Your task to perform on an android device: Open Chrome and go to settings Image 0: 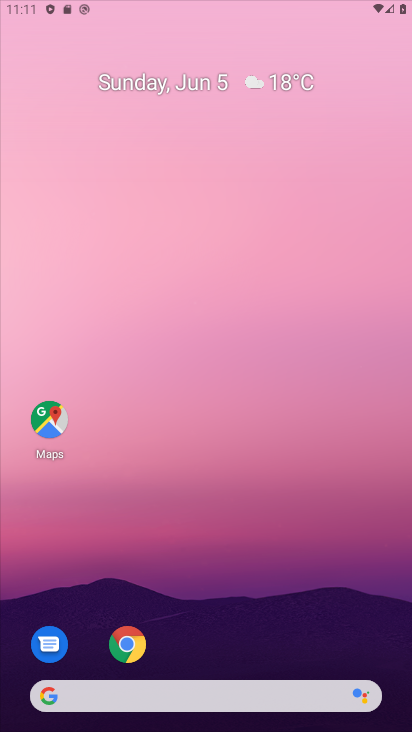
Step 0: drag from (229, 568) to (264, 161)
Your task to perform on an android device: Open Chrome and go to settings Image 1: 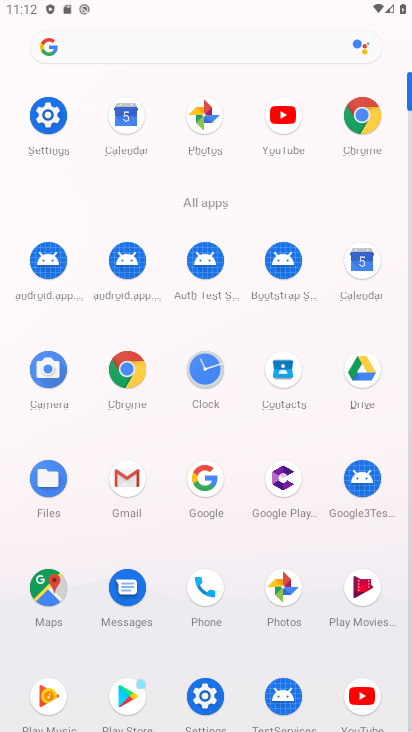
Step 1: click (378, 142)
Your task to perform on an android device: Open Chrome and go to settings Image 2: 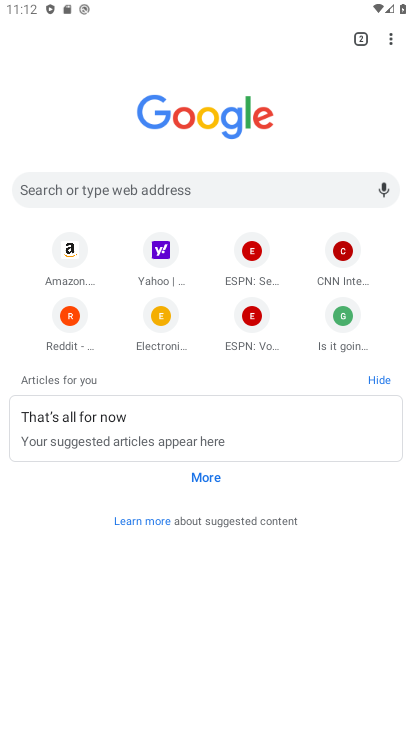
Step 2: click (388, 42)
Your task to perform on an android device: Open Chrome and go to settings Image 3: 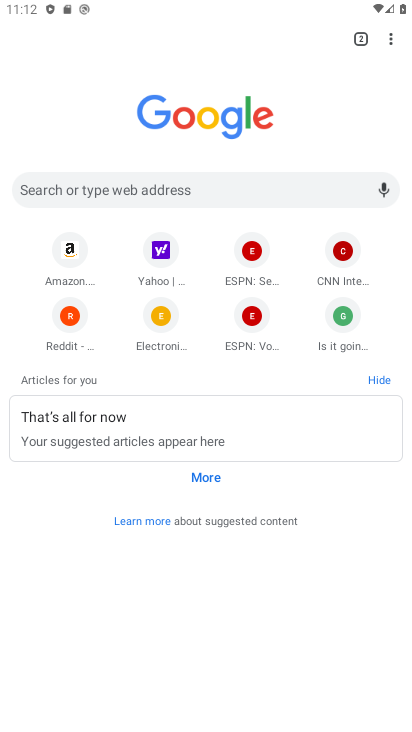
Step 3: click (397, 51)
Your task to perform on an android device: Open Chrome and go to settings Image 4: 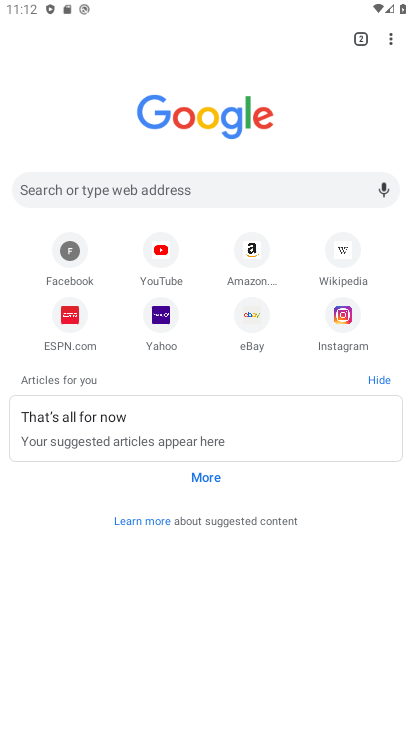
Step 4: click (382, 50)
Your task to perform on an android device: Open Chrome and go to settings Image 5: 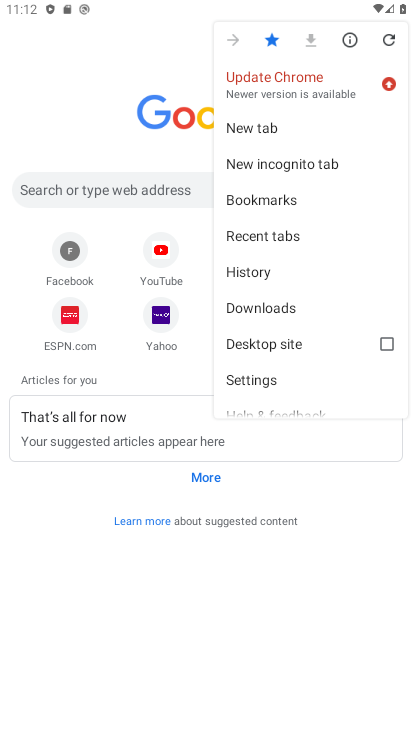
Step 5: click (252, 376)
Your task to perform on an android device: Open Chrome and go to settings Image 6: 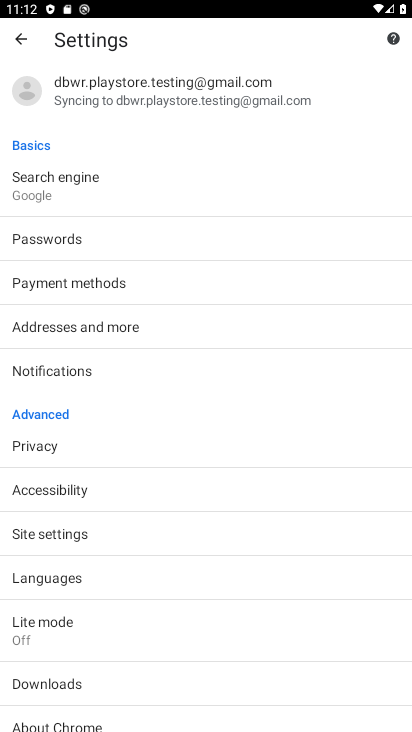
Step 6: task complete